Your task to perform on an android device: Set the phone to "Do not disturb". Image 0: 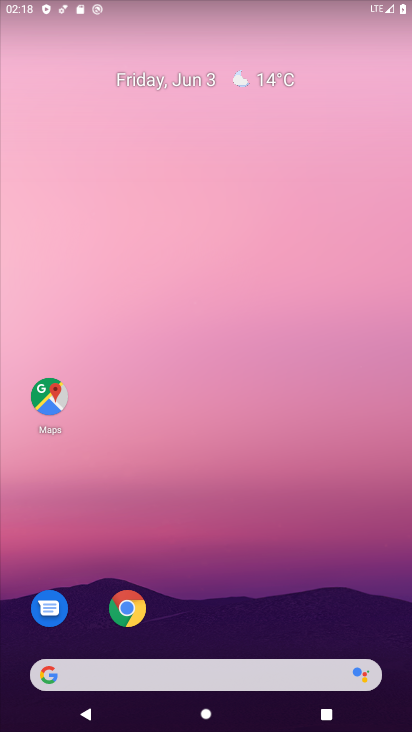
Step 0: drag from (200, 5) to (207, 475)
Your task to perform on an android device: Set the phone to "Do not disturb". Image 1: 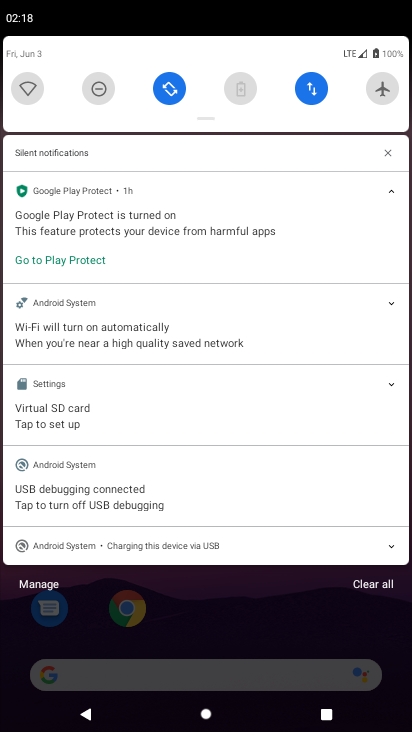
Step 1: click (100, 82)
Your task to perform on an android device: Set the phone to "Do not disturb". Image 2: 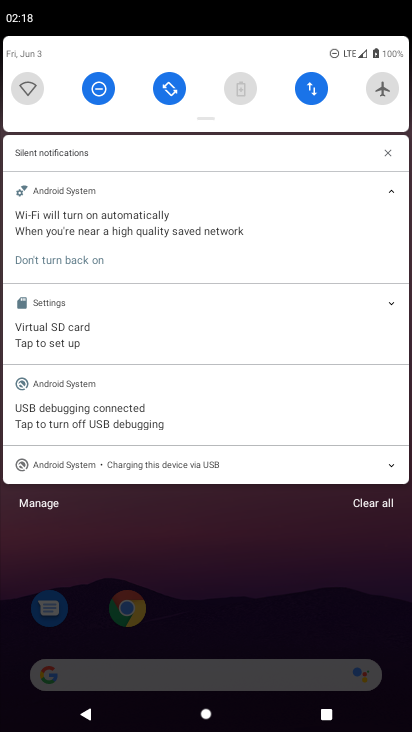
Step 2: task complete